Your task to perform on an android device: delete the emails in spam in the gmail app Image 0: 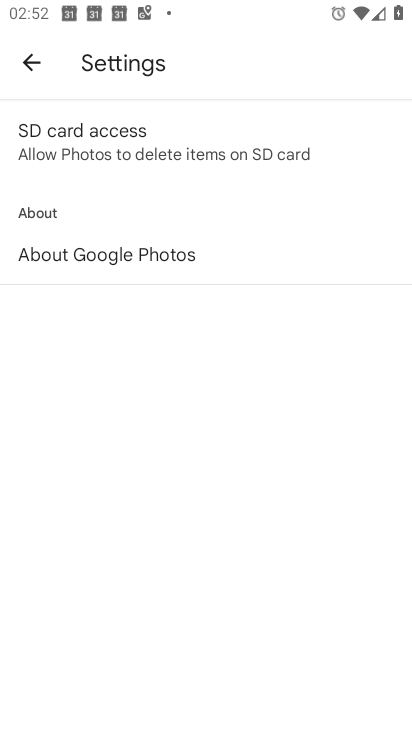
Step 0: press home button
Your task to perform on an android device: delete the emails in spam in the gmail app Image 1: 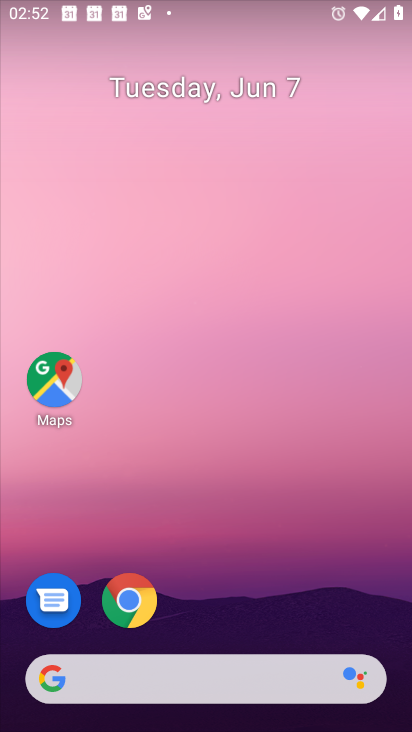
Step 1: drag from (209, 729) to (202, 184)
Your task to perform on an android device: delete the emails in spam in the gmail app Image 2: 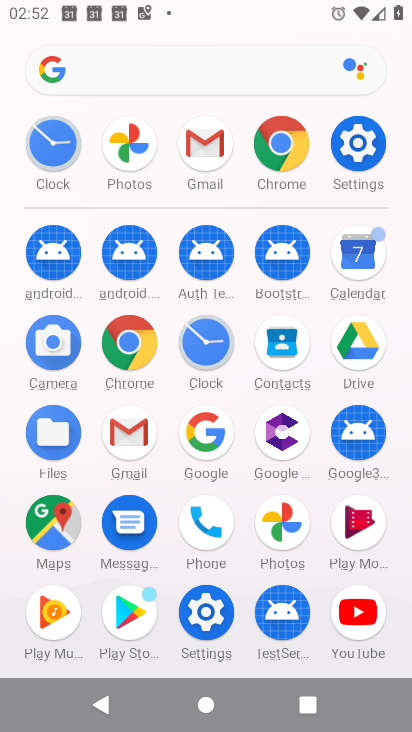
Step 2: click (128, 431)
Your task to perform on an android device: delete the emails in spam in the gmail app Image 3: 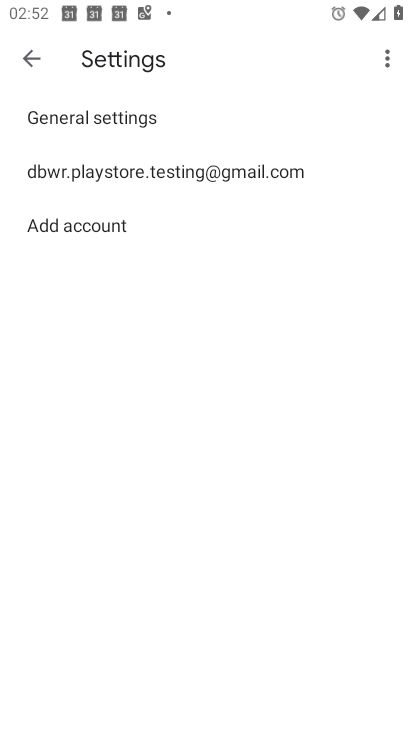
Step 3: click (29, 58)
Your task to perform on an android device: delete the emails in spam in the gmail app Image 4: 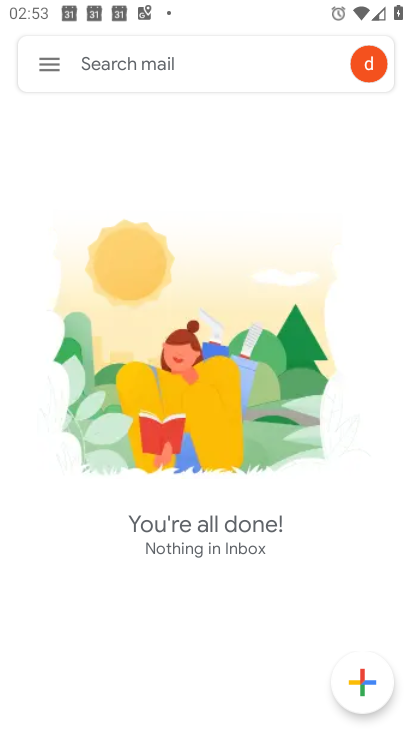
Step 4: click (48, 69)
Your task to perform on an android device: delete the emails in spam in the gmail app Image 5: 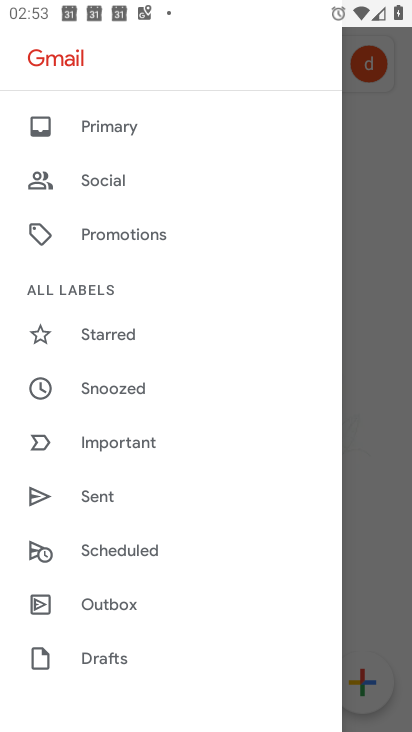
Step 5: drag from (153, 617) to (165, 282)
Your task to perform on an android device: delete the emails in spam in the gmail app Image 6: 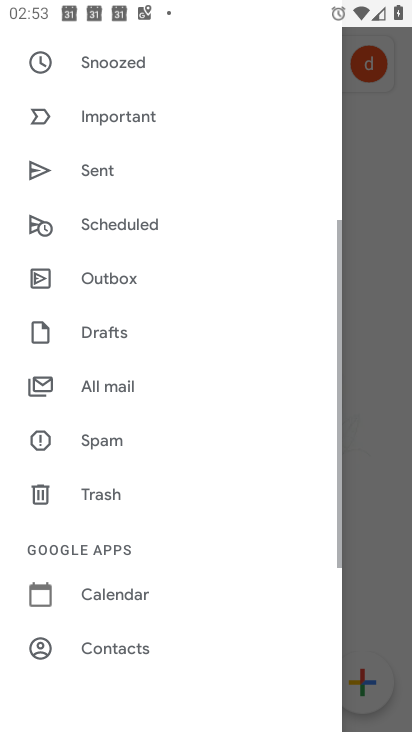
Step 6: drag from (150, 580) to (150, 256)
Your task to perform on an android device: delete the emails in spam in the gmail app Image 7: 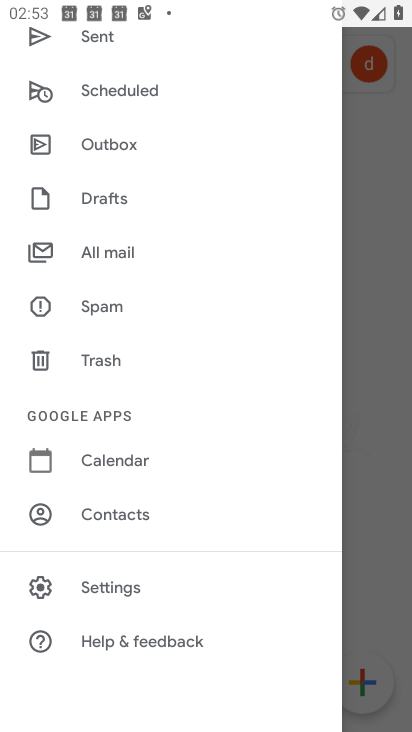
Step 7: click (113, 305)
Your task to perform on an android device: delete the emails in spam in the gmail app Image 8: 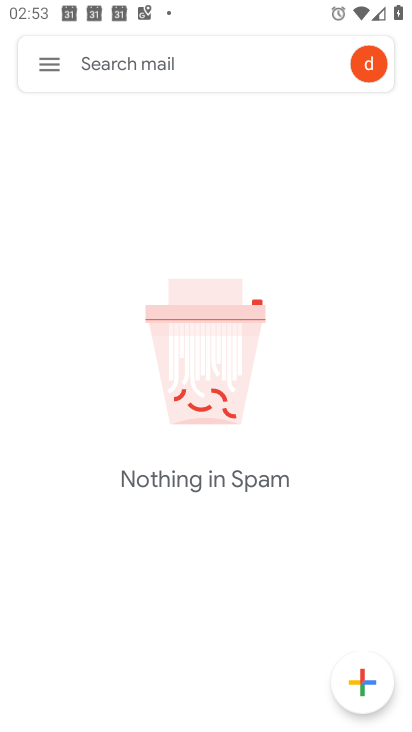
Step 8: task complete